Your task to perform on an android device: turn off smart reply in the gmail app Image 0: 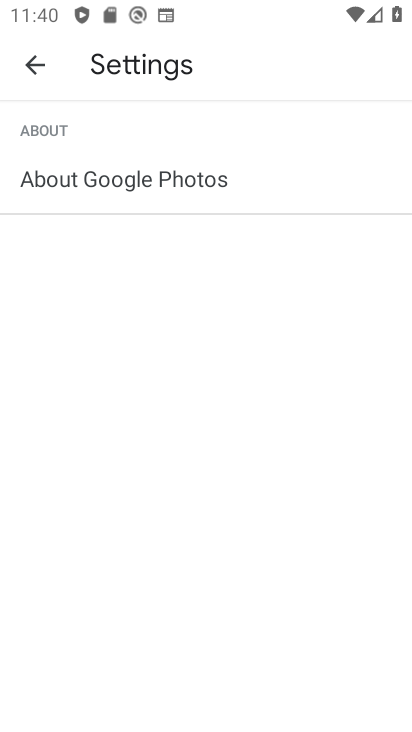
Step 0: press home button
Your task to perform on an android device: turn off smart reply in the gmail app Image 1: 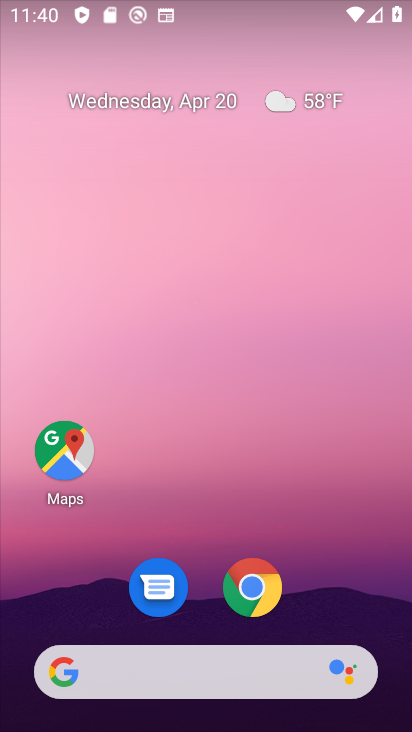
Step 1: drag from (188, 540) to (173, 49)
Your task to perform on an android device: turn off smart reply in the gmail app Image 2: 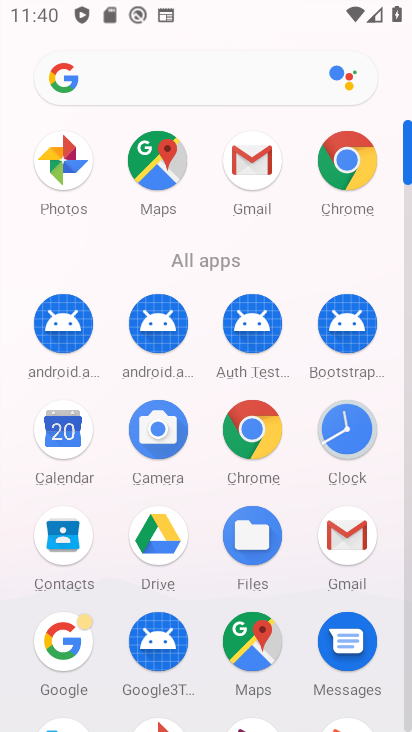
Step 2: click (272, 152)
Your task to perform on an android device: turn off smart reply in the gmail app Image 3: 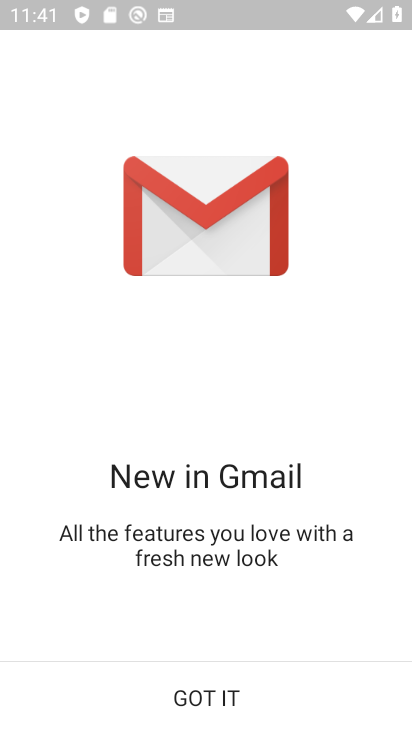
Step 3: click (159, 722)
Your task to perform on an android device: turn off smart reply in the gmail app Image 4: 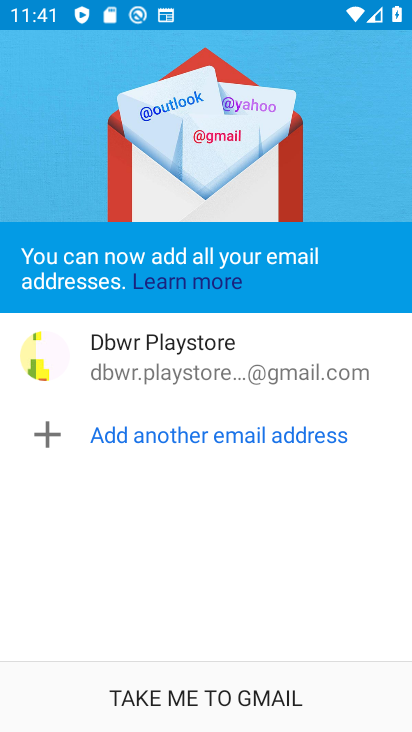
Step 4: click (159, 722)
Your task to perform on an android device: turn off smart reply in the gmail app Image 5: 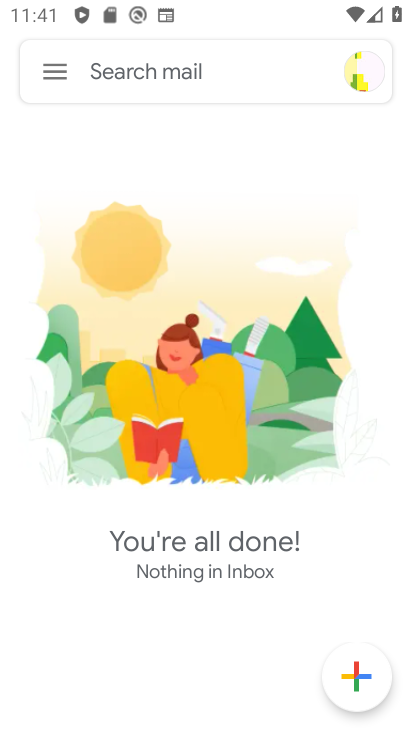
Step 5: click (75, 66)
Your task to perform on an android device: turn off smart reply in the gmail app Image 6: 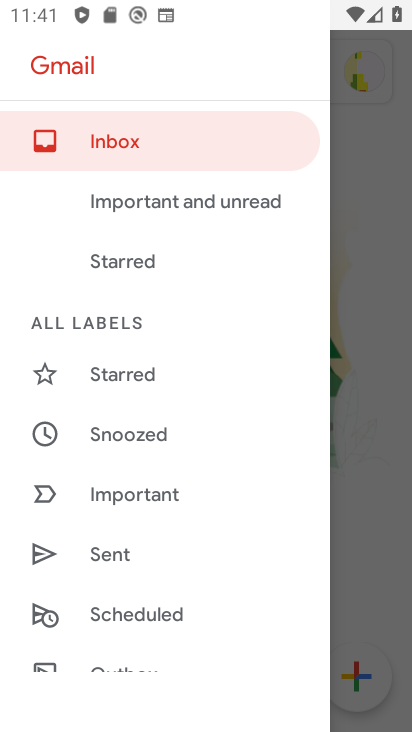
Step 6: drag from (131, 591) to (231, 99)
Your task to perform on an android device: turn off smart reply in the gmail app Image 7: 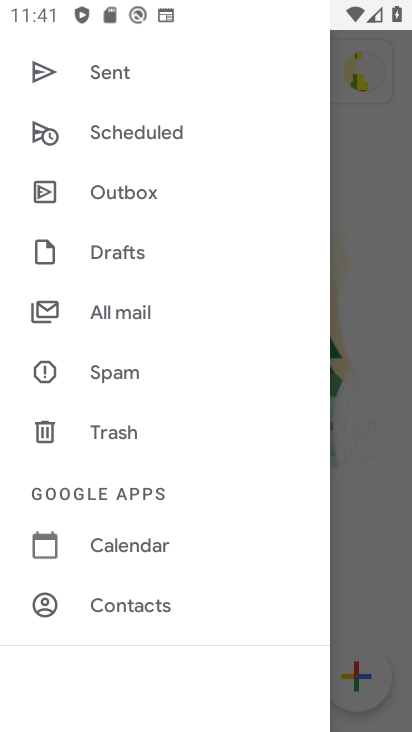
Step 7: drag from (125, 613) to (127, 255)
Your task to perform on an android device: turn off smart reply in the gmail app Image 8: 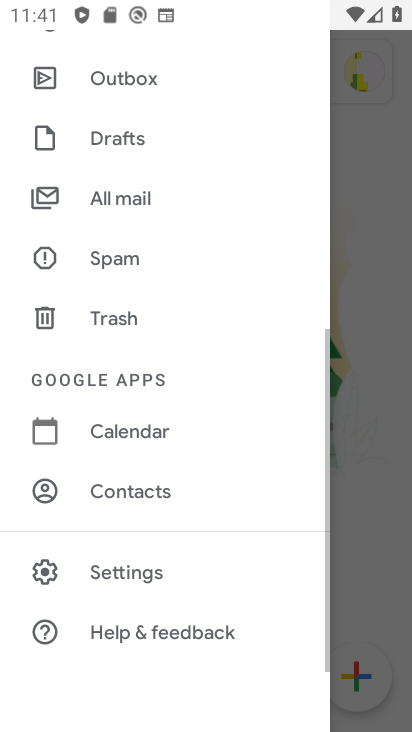
Step 8: click (190, 586)
Your task to perform on an android device: turn off smart reply in the gmail app Image 9: 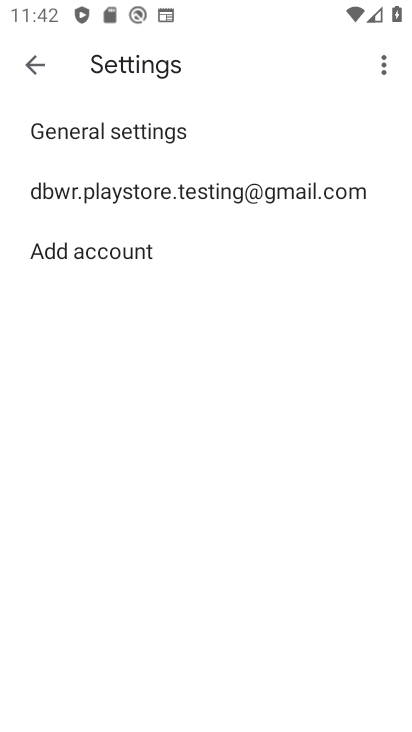
Step 9: click (164, 206)
Your task to perform on an android device: turn off smart reply in the gmail app Image 10: 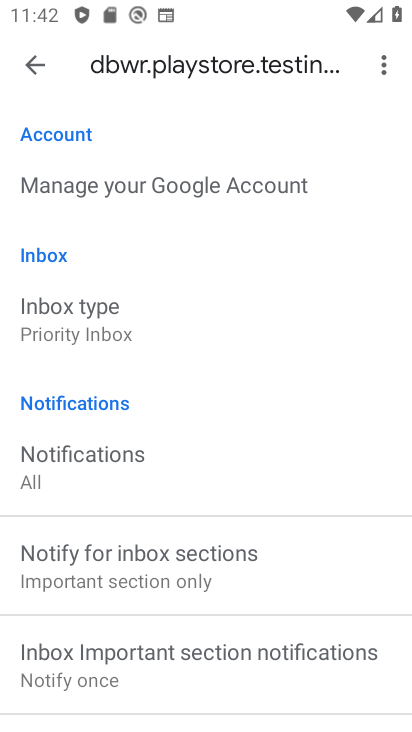
Step 10: drag from (65, 584) to (291, 93)
Your task to perform on an android device: turn off smart reply in the gmail app Image 11: 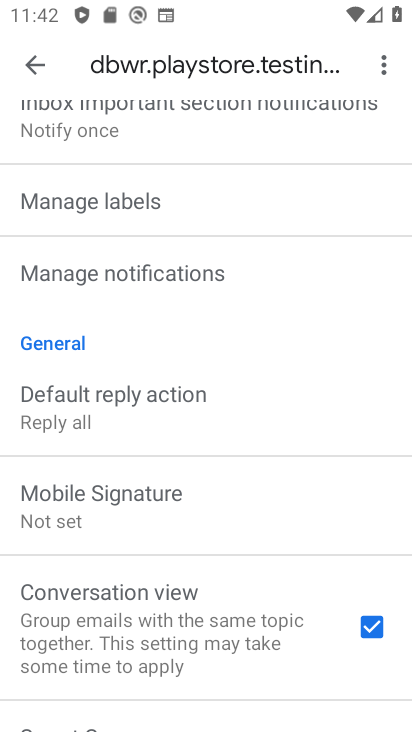
Step 11: drag from (108, 608) to (179, 137)
Your task to perform on an android device: turn off smart reply in the gmail app Image 12: 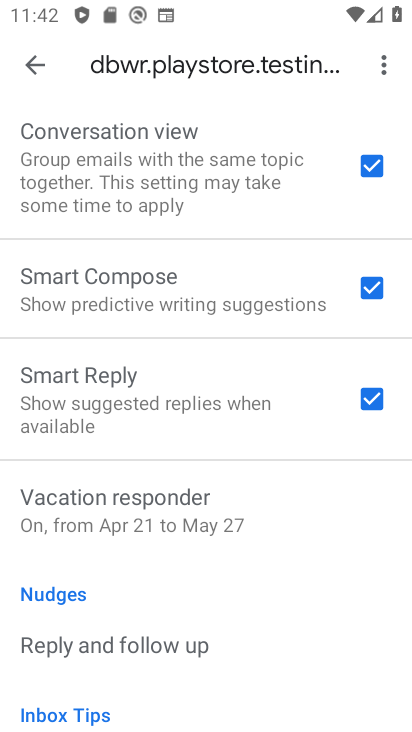
Step 12: click (374, 394)
Your task to perform on an android device: turn off smart reply in the gmail app Image 13: 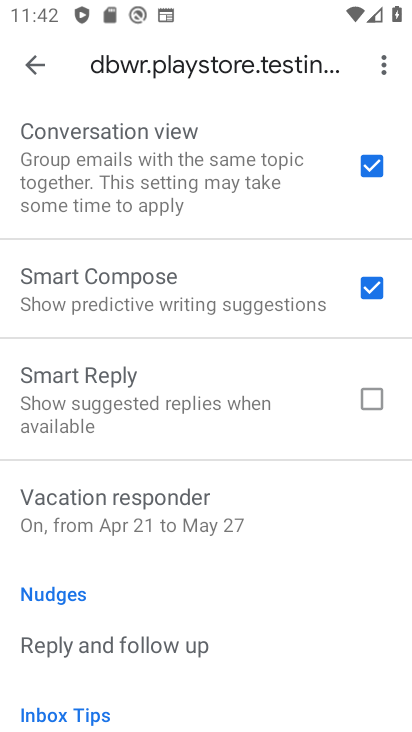
Step 13: task complete